Your task to perform on an android device: change text size in settings app Image 0: 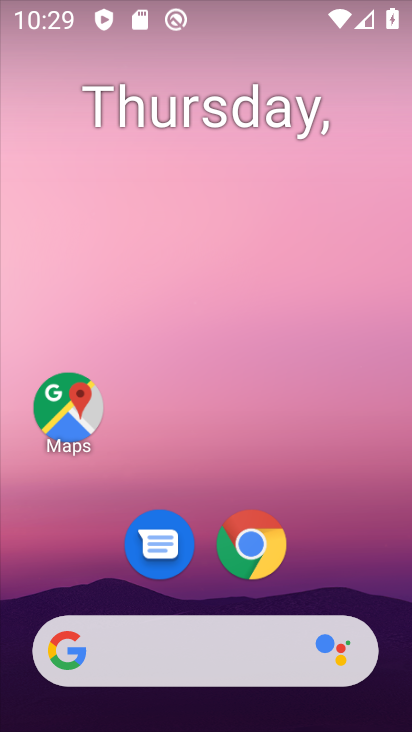
Step 0: drag from (362, 476) to (393, 91)
Your task to perform on an android device: change text size in settings app Image 1: 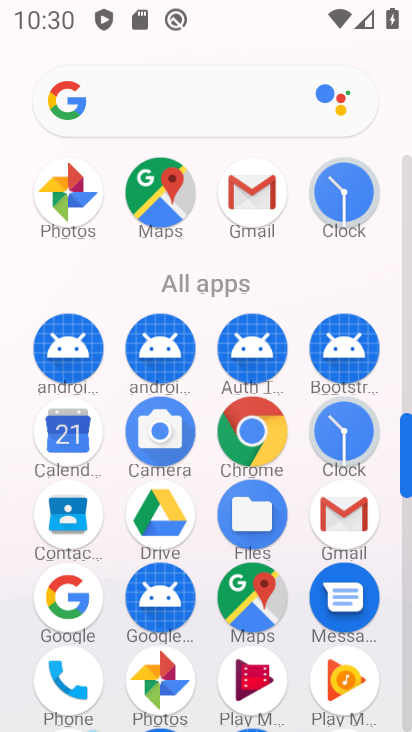
Step 1: drag from (295, 294) to (281, 19)
Your task to perform on an android device: change text size in settings app Image 2: 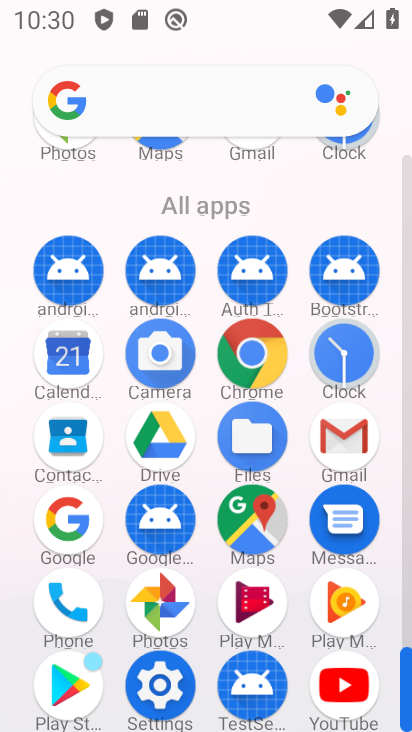
Step 2: click (167, 680)
Your task to perform on an android device: change text size in settings app Image 3: 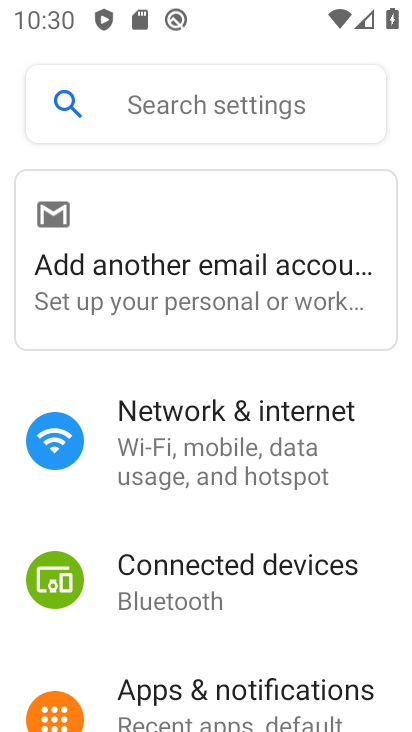
Step 3: drag from (370, 682) to (370, 312)
Your task to perform on an android device: change text size in settings app Image 4: 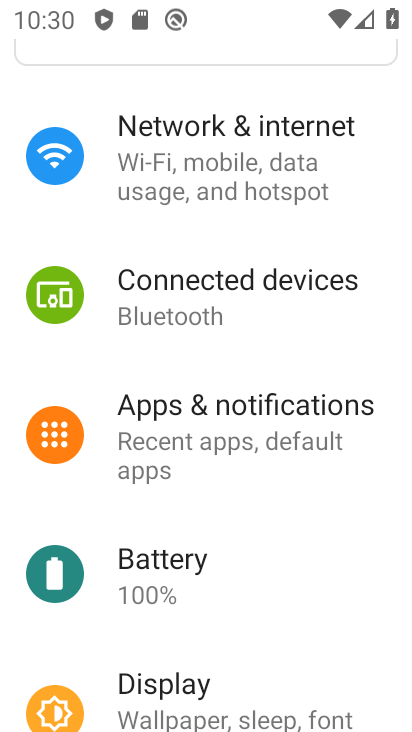
Step 4: drag from (303, 606) to (314, 411)
Your task to perform on an android device: change text size in settings app Image 5: 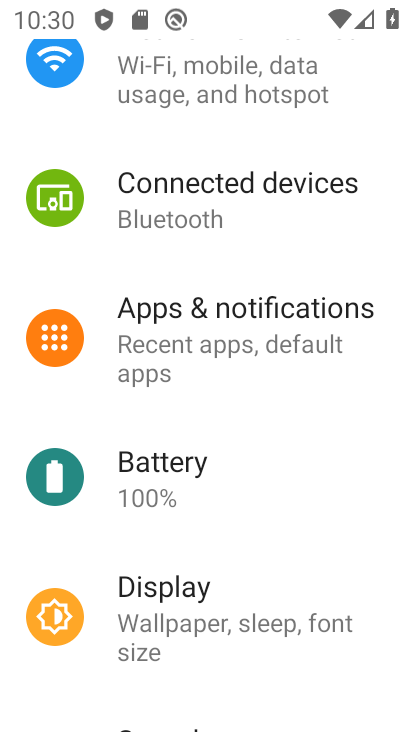
Step 5: click (225, 619)
Your task to perform on an android device: change text size in settings app Image 6: 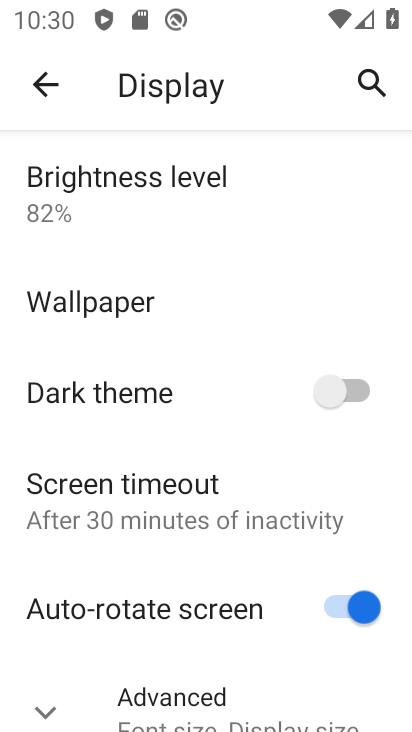
Step 6: drag from (286, 502) to (294, 204)
Your task to perform on an android device: change text size in settings app Image 7: 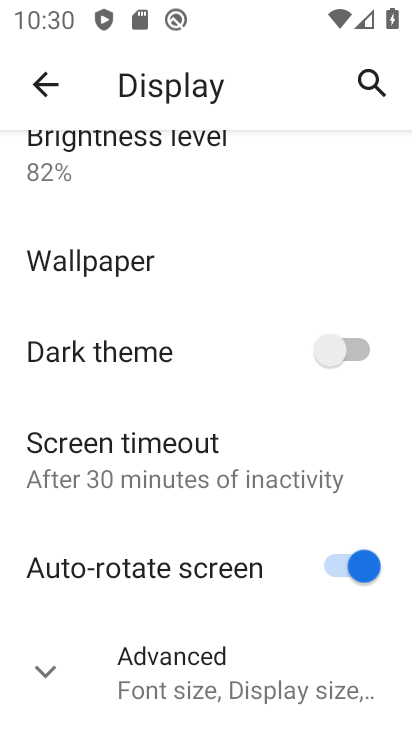
Step 7: click (229, 692)
Your task to perform on an android device: change text size in settings app Image 8: 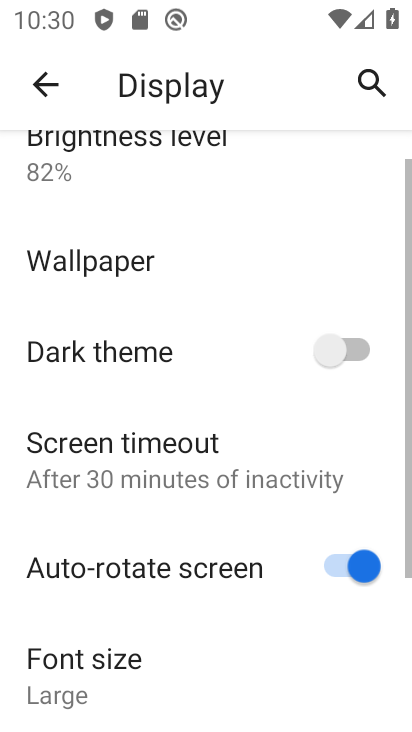
Step 8: drag from (296, 679) to (304, 321)
Your task to perform on an android device: change text size in settings app Image 9: 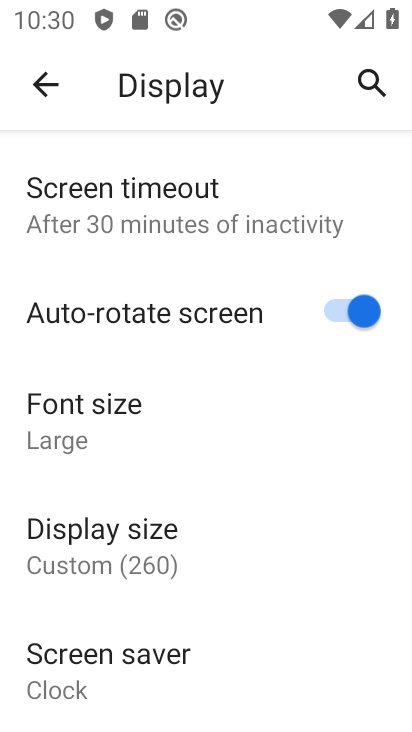
Step 9: click (66, 429)
Your task to perform on an android device: change text size in settings app Image 10: 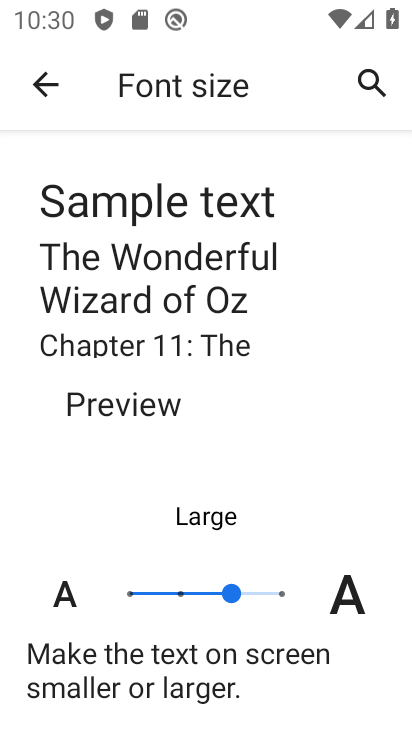
Step 10: click (181, 591)
Your task to perform on an android device: change text size in settings app Image 11: 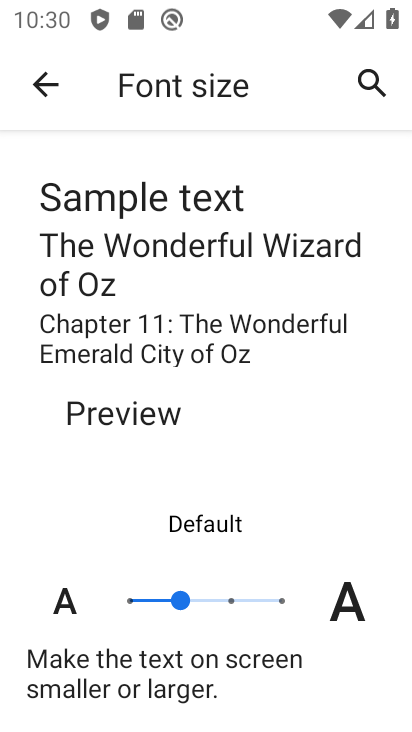
Step 11: task complete